Your task to perform on an android device: Open Google Maps Image 0: 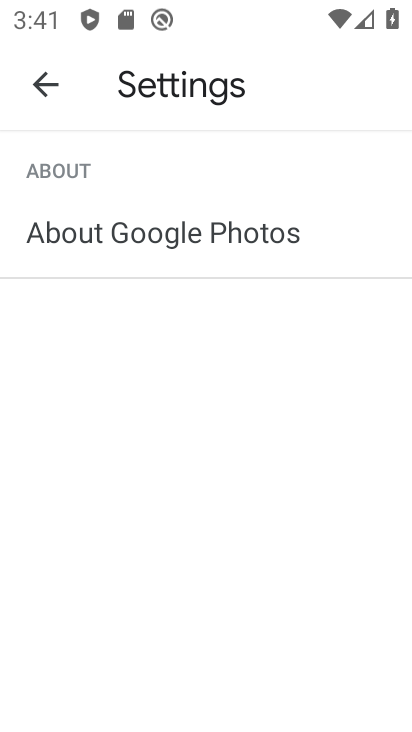
Step 0: press back button
Your task to perform on an android device: Open Google Maps Image 1: 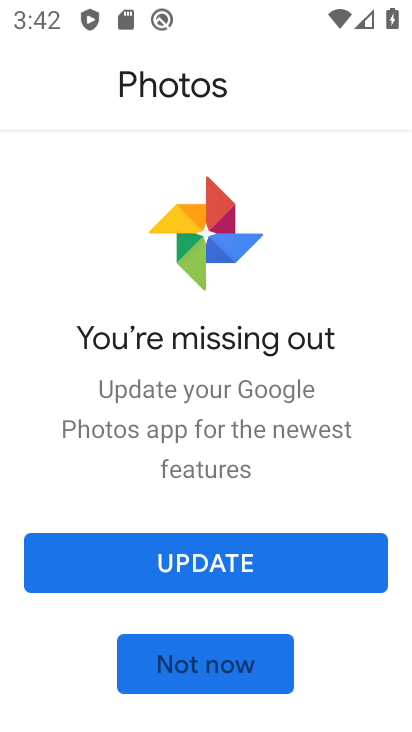
Step 1: press back button
Your task to perform on an android device: Open Google Maps Image 2: 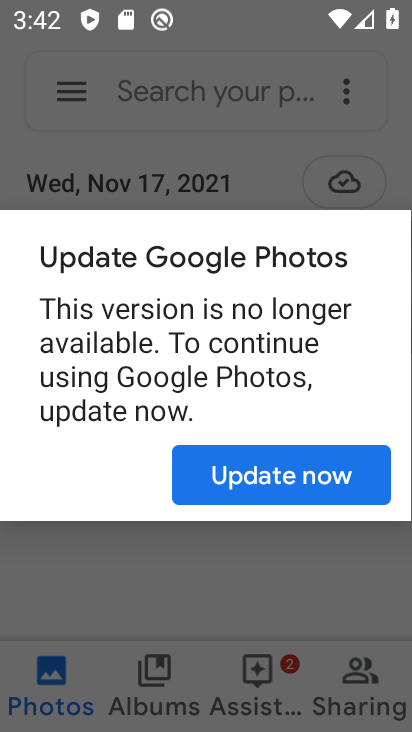
Step 2: press home button
Your task to perform on an android device: Open Google Maps Image 3: 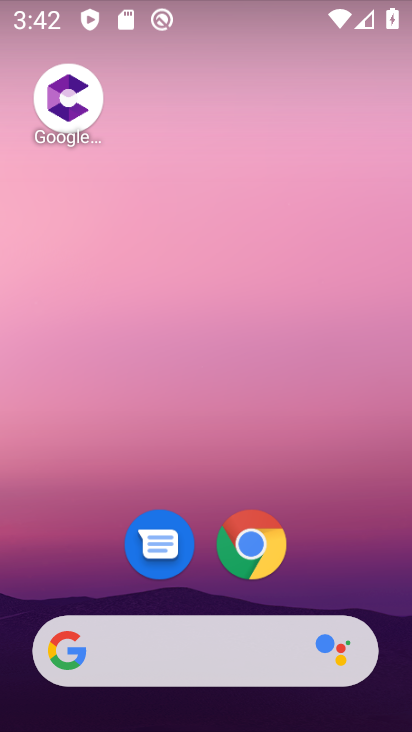
Step 3: click (64, 657)
Your task to perform on an android device: Open Google Maps Image 4: 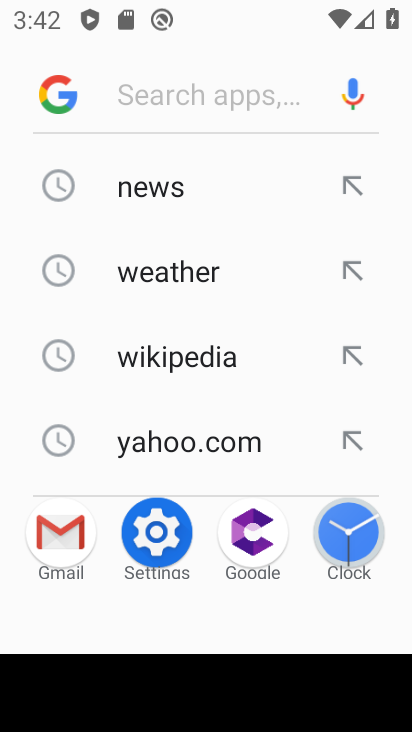
Step 4: press home button
Your task to perform on an android device: Open Google Maps Image 5: 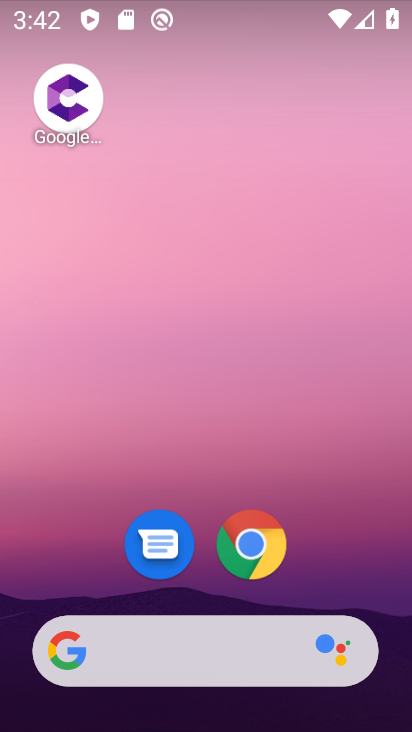
Step 5: drag from (16, 631) to (281, 157)
Your task to perform on an android device: Open Google Maps Image 6: 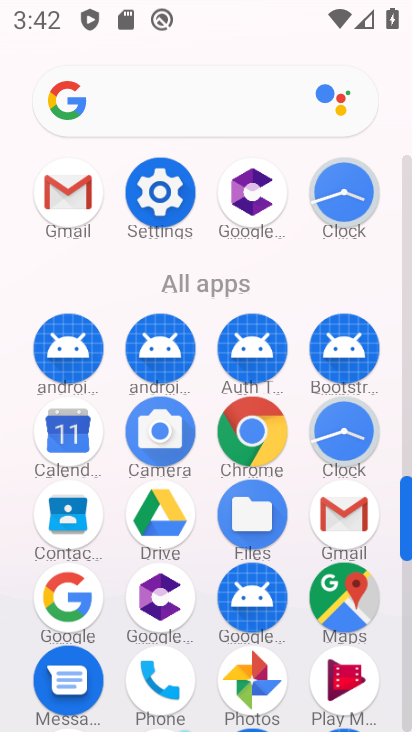
Step 6: click (349, 587)
Your task to perform on an android device: Open Google Maps Image 7: 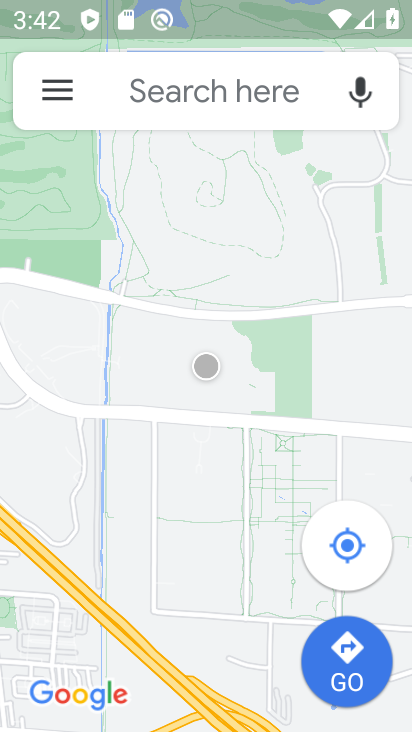
Step 7: task complete